Your task to perform on an android device: Open accessibility settings Image 0: 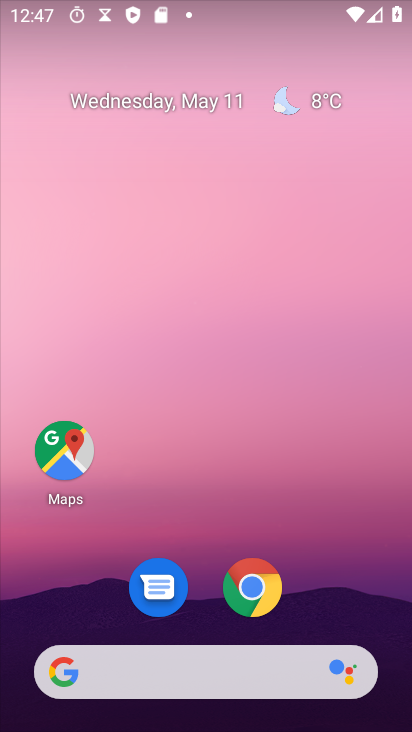
Step 0: drag from (356, 612) to (172, 141)
Your task to perform on an android device: Open accessibility settings Image 1: 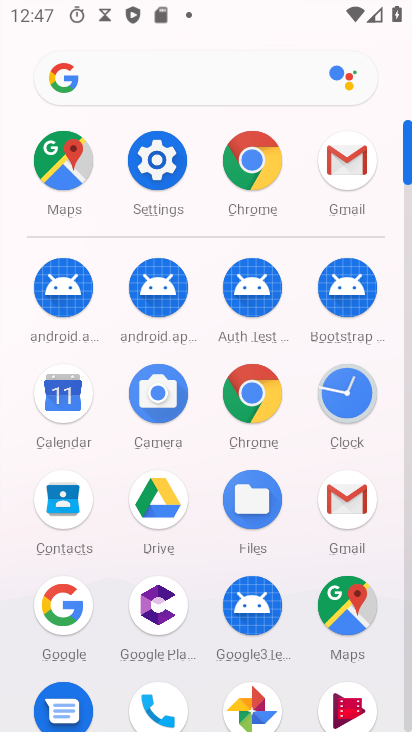
Step 1: click (156, 161)
Your task to perform on an android device: Open accessibility settings Image 2: 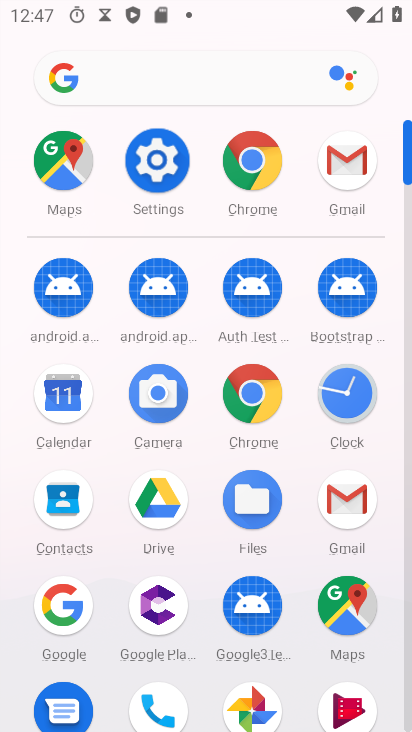
Step 2: click (154, 161)
Your task to perform on an android device: Open accessibility settings Image 3: 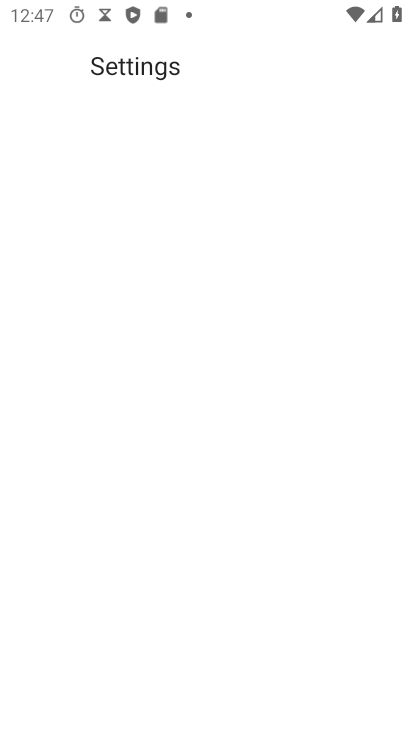
Step 3: click (154, 161)
Your task to perform on an android device: Open accessibility settings Image 4: 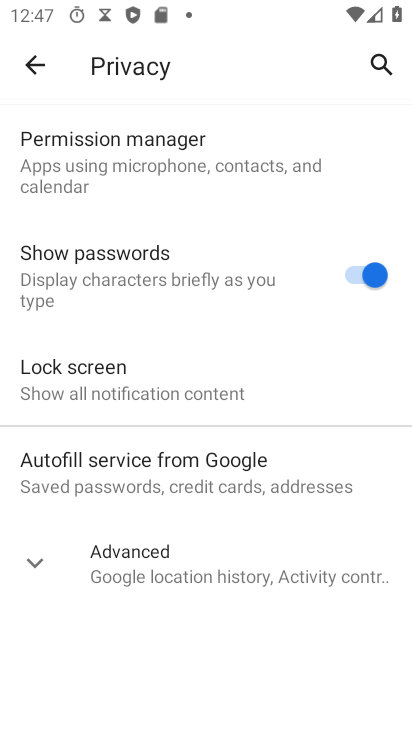
Step 4: click (25, 64)
Your task to perform on an android device: Open accessibility settings Image 5: 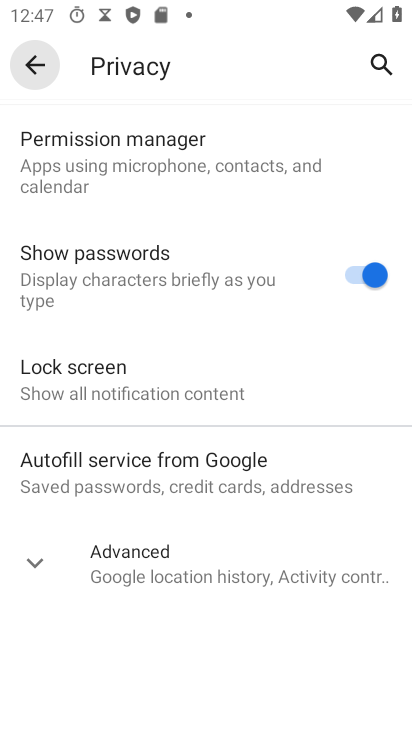
Step 5: click (25, 64)
Your task to perform on an android device: Open accessibility settings Image 6: 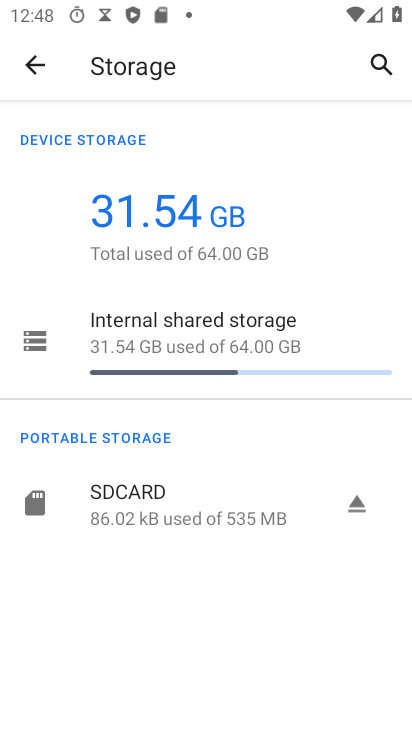
Step 6: click (30, 56)
Your task to perform on an android device: Open accessibility settings Image 7: 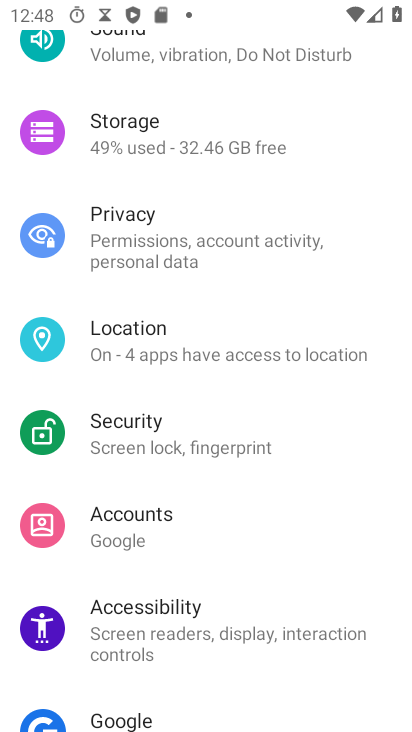
Step 7: click (146, 621)
Your task to perform on an android device: Open accessibility settings Image 8: 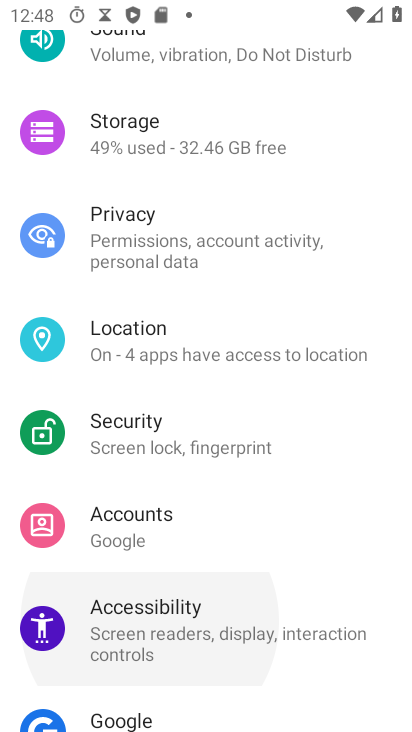
Step 8: click (146, 621)
Your task to perform on an android device: Open accessibility settings Image 9: 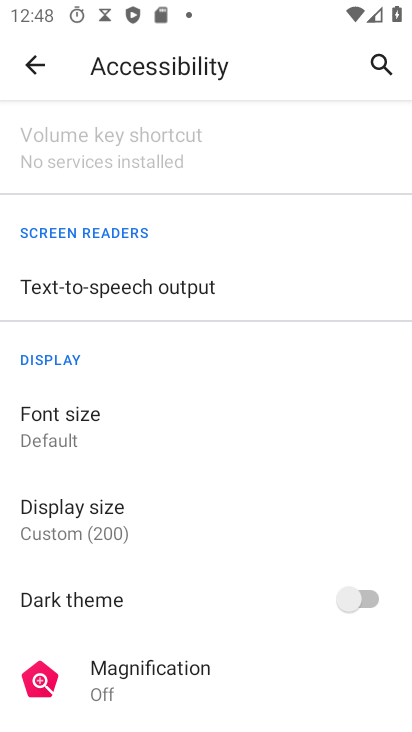
Step 9: task complete